Your task to perform on an android device: change text size in settings app Image 0: 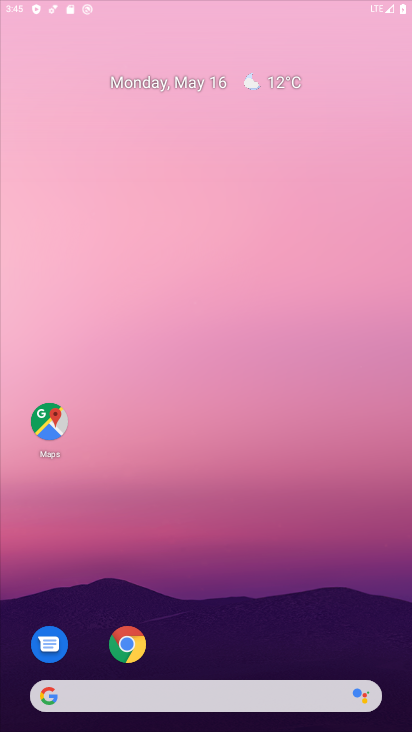
Step 0: drag from (306, 260) to (310, 49)
Your task to perform on an android device: change text size in settings app Image 1: 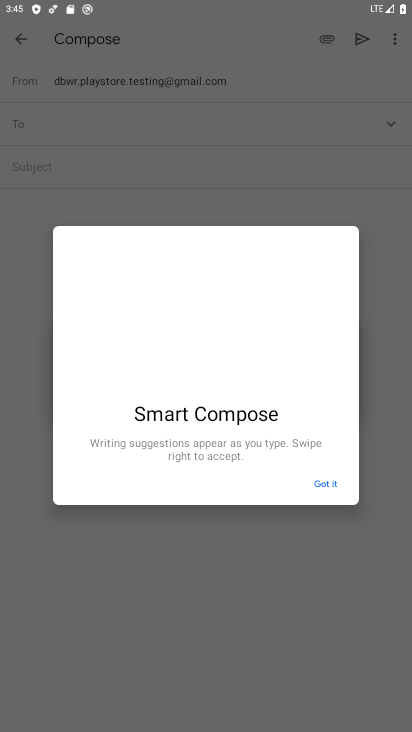
Step 1: press back button
Your task to perform on an android device: change text size in settings app Image 2: 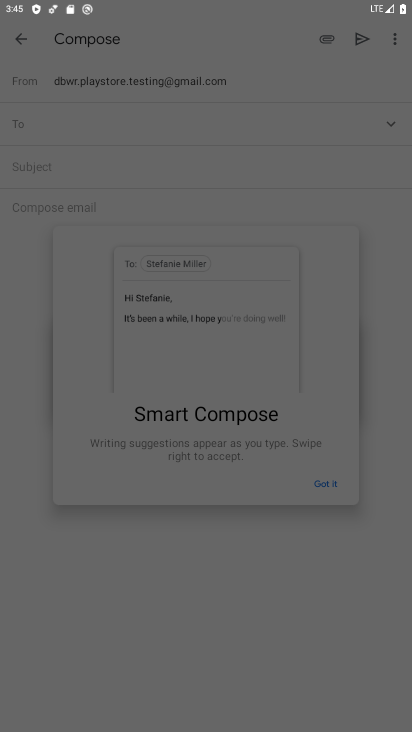
Step 2: press home button
Your task to perform on an android device: change text size in settings app Image 3: 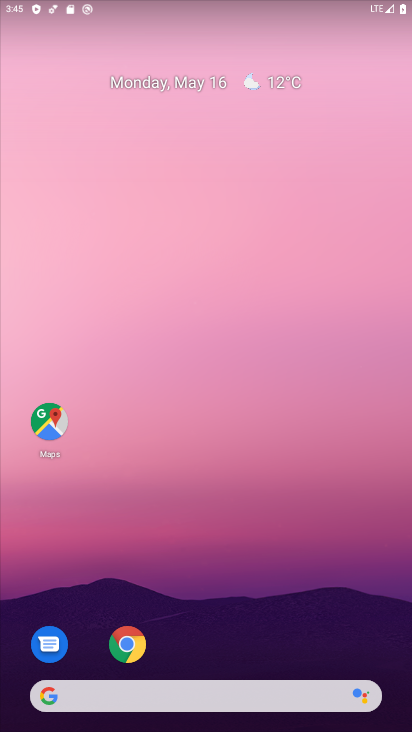
Step 3: drag from (233, 587) to (249, 125)
Your task to perform on an android device: change text size in settings app Image 4: 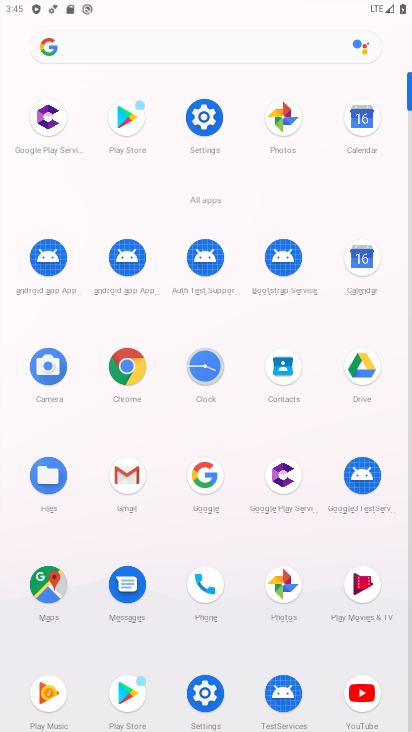
Step 4: click (208, 100)
Your task to perform on an android device: change text size in settings app Image 5: 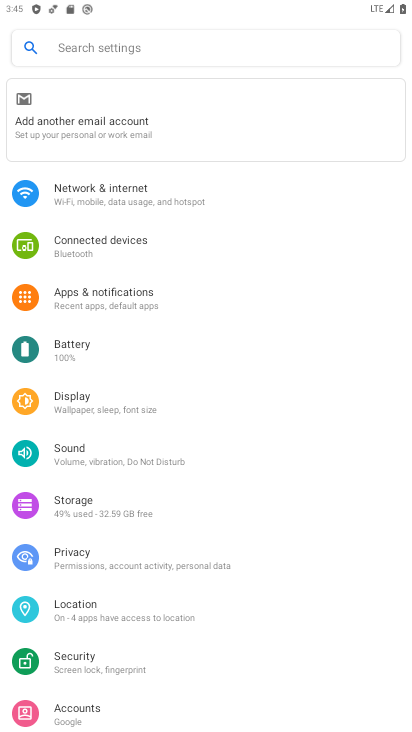
Step 5: click (109, 46)
Your task to perform on an android device: change text size in settings app Image 6: 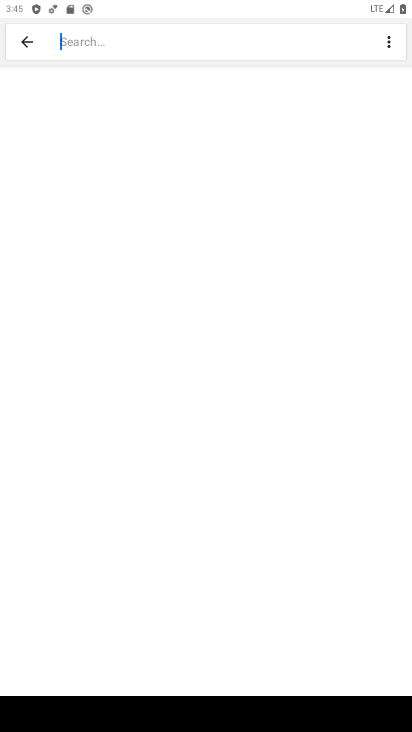
Step 6: type "text size"
Your task to perform on an android device: change text size in settings app Image 7: 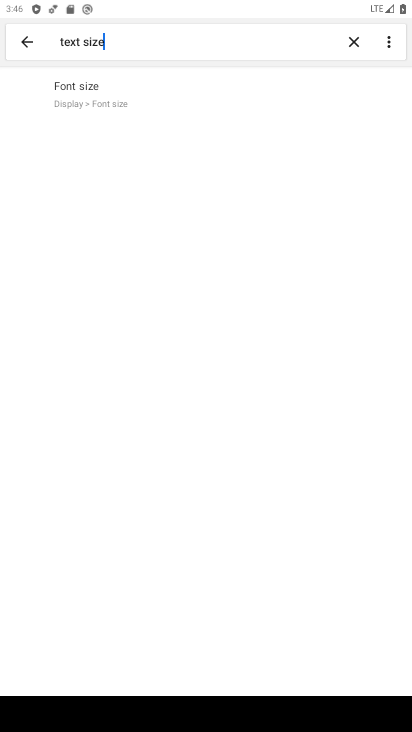
Step 7: click (118, 99)
Your task to perform on an android device: change text size in settings app Image 8: 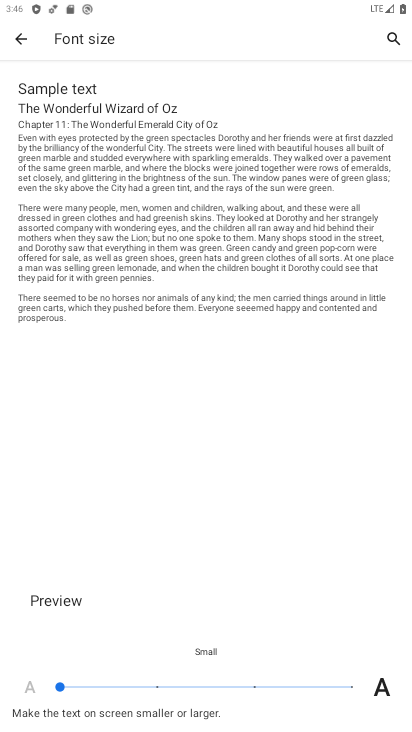
Step 8: task complete